Your task to perform on an android device: see tabs open on other devices in the chrome app Image 0: 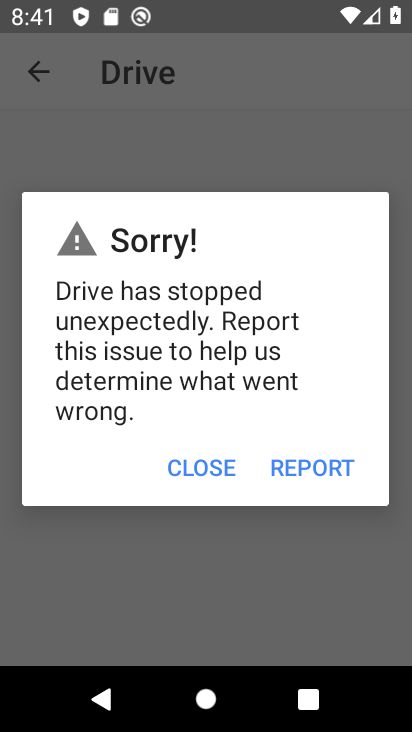
Step 0: press home button
Your task to perform on an android device: see tabs open on other devices in the chrome app Image 1: 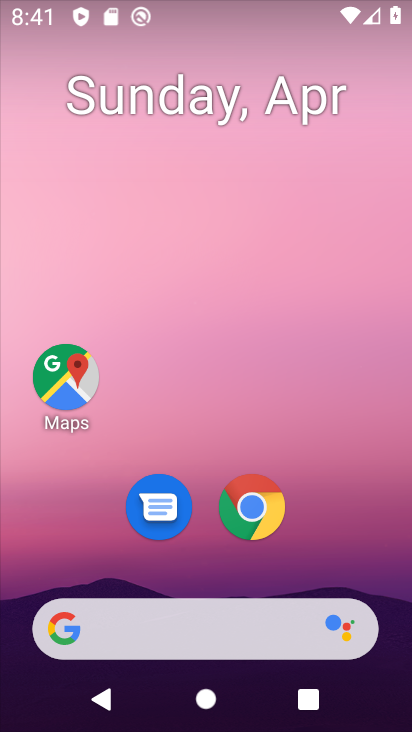
Step 1: click (249, 529)
Your task to perform on an android device: see tabs open on other devices in the chrome app Image 2: 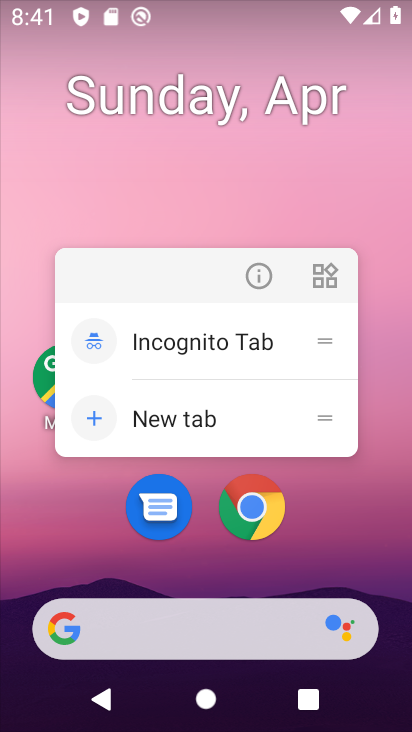
Step 2: click (252, 523)
Your task to perform on an android device: see tabs open on other devices in the chrome app Image 3: 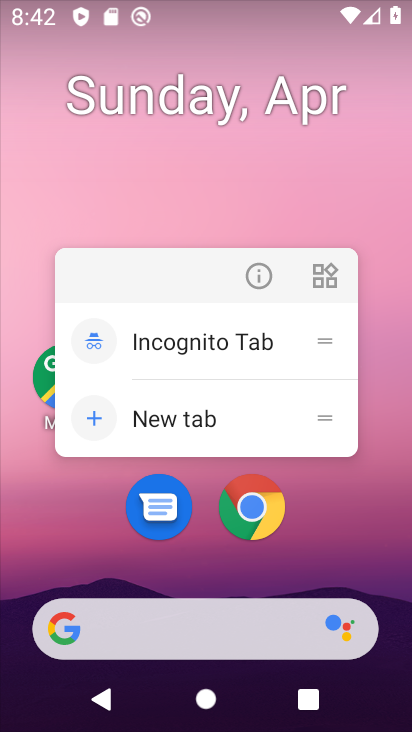
Step 3: click (252, 523)
Your task to perform on an android device: see tabs open on other devices in the chrome app Image 4: 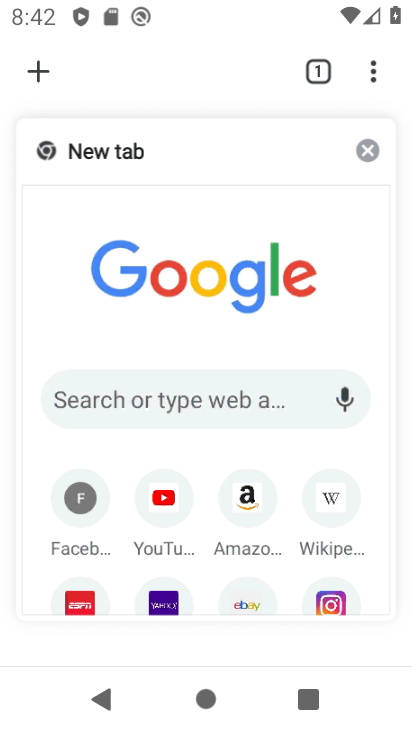
Step 4: task complete